Your task to perform on an android device: When is my next appointment? Image 0: 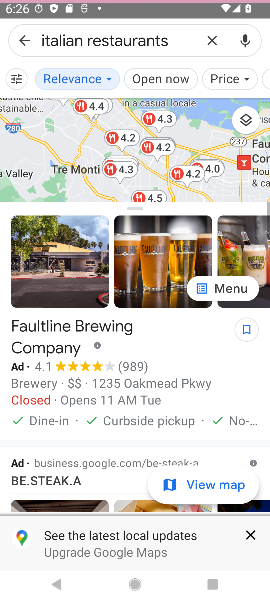
Step 0: press home button
Your task to perform on an android device: When is my next appointment? Image 1: 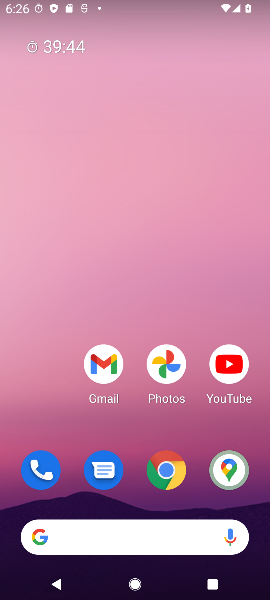
Step 1: drag from (172, 504) to (184, 60)
Your task to perform on an android device: When is my next appointment? Image 2: 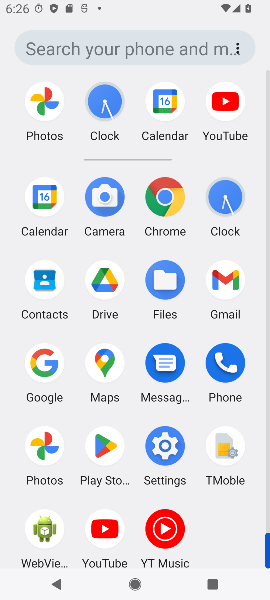
Step 2: click (65, 216)
Your task to perform on an android device: When is my next appointment? Image 3: 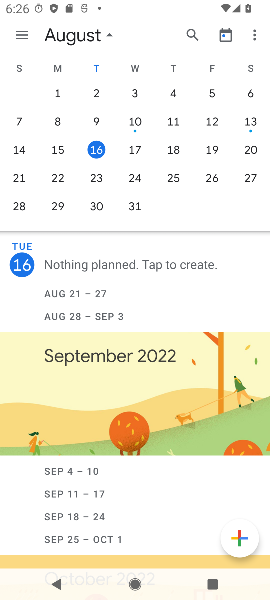
Step 3: click (97, 151)
Your task to perform on an android device: When is my next appointment? Image 4: 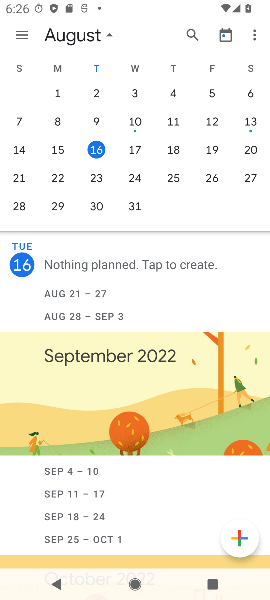
Step 4: task complete